Your task to perform on an android device: Open Google Maps and go to "Timeline" Image 0: 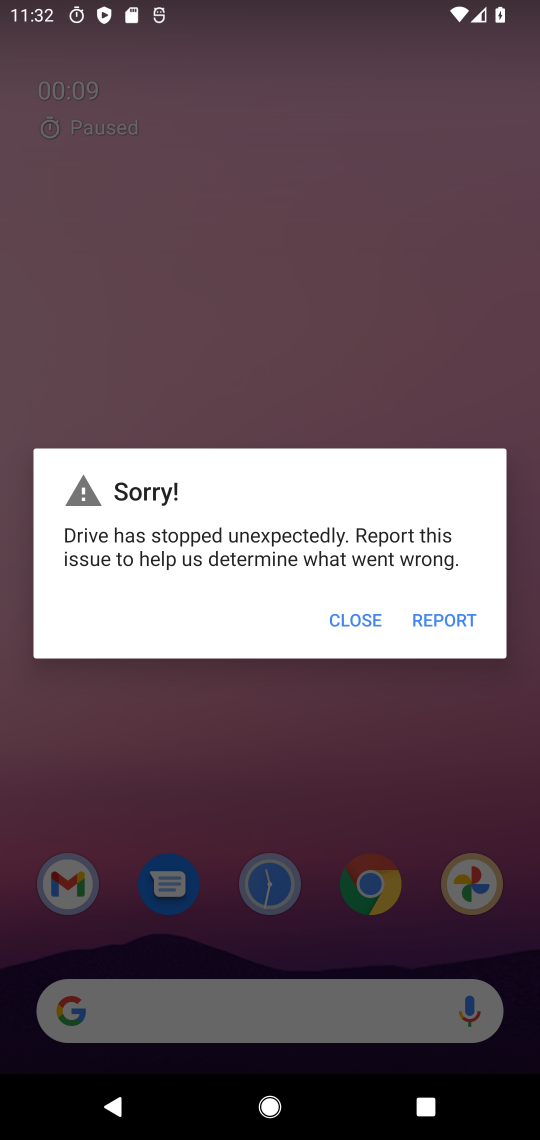
Step 0: press home button
Your task to perform on an android device: Open Google Maps and go to "Timeline" Image 1: 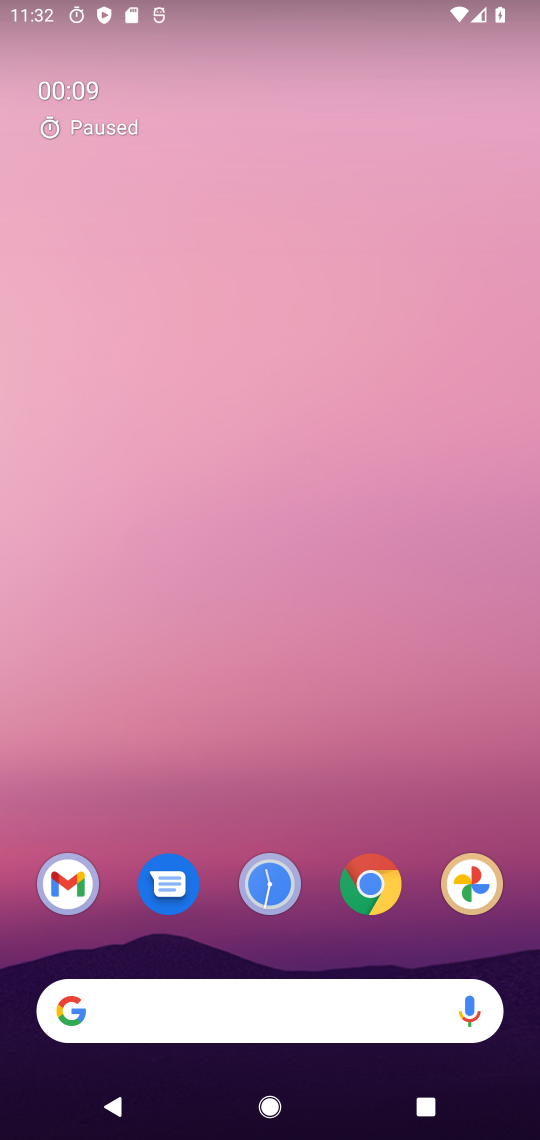
Step 1: drag from (270, 901) to (270, 88)
Your task to perform on an android device: Open Google Maps and go to "Timeline" Image 2: 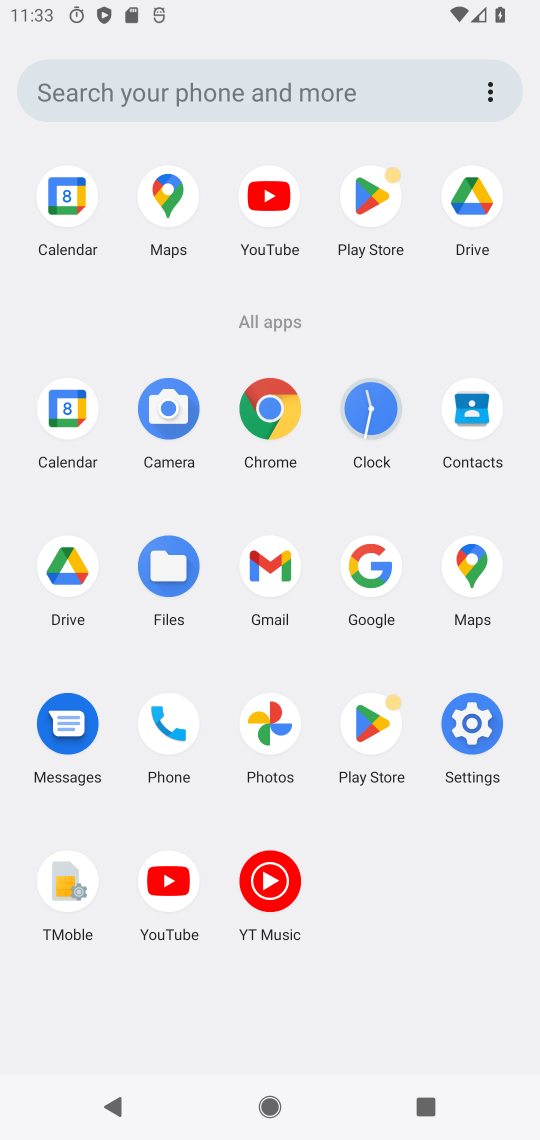
Step 2: click (470, 578)
Your task to perform on an android device: Open Google Maps and go to "Timeline" Image 3: 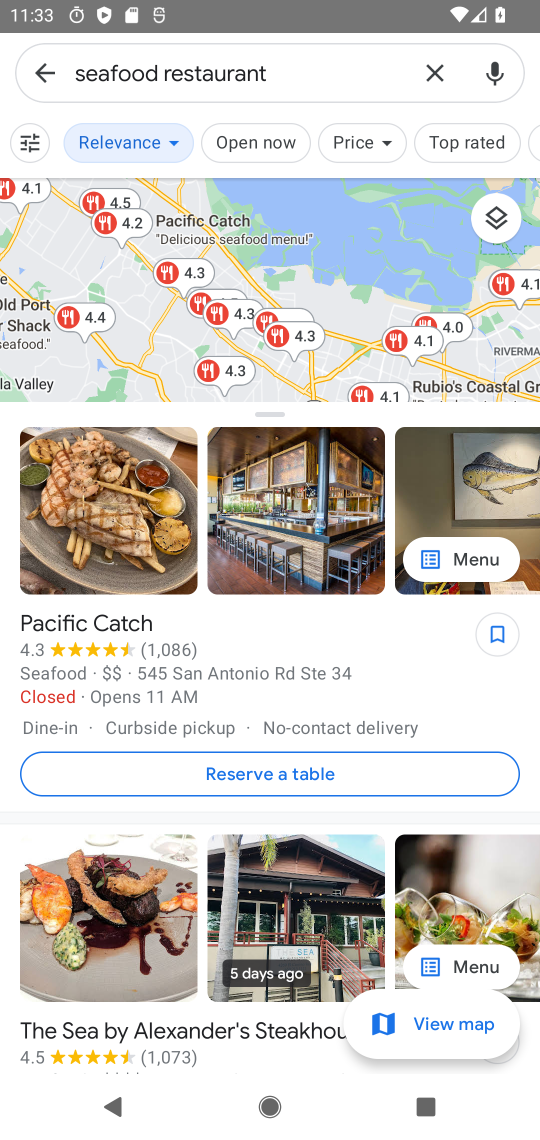
Step 3: click (43, 62)
Your task to perform on an android device: Open Google Maps and go to "Timeline" Image 4: 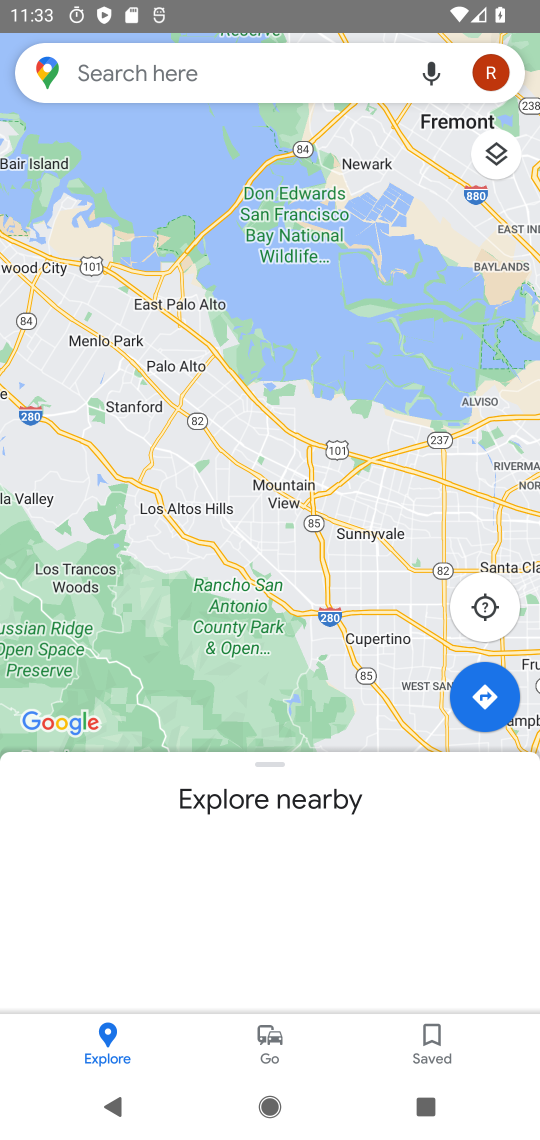
Step 4: click (39, 73)
Your task to perform on an android device: Open Google Maps and go to "Timeline" Image 5: 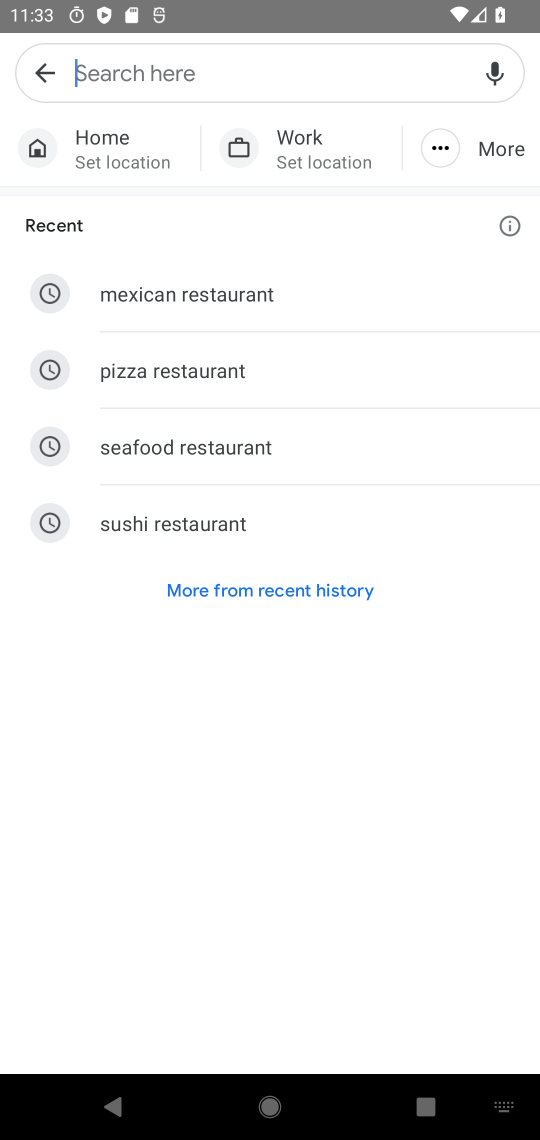
Step 5: click (48, 65)
Your task to perform on an android device: Open Google Maps and go to "Timeline" Image 6: 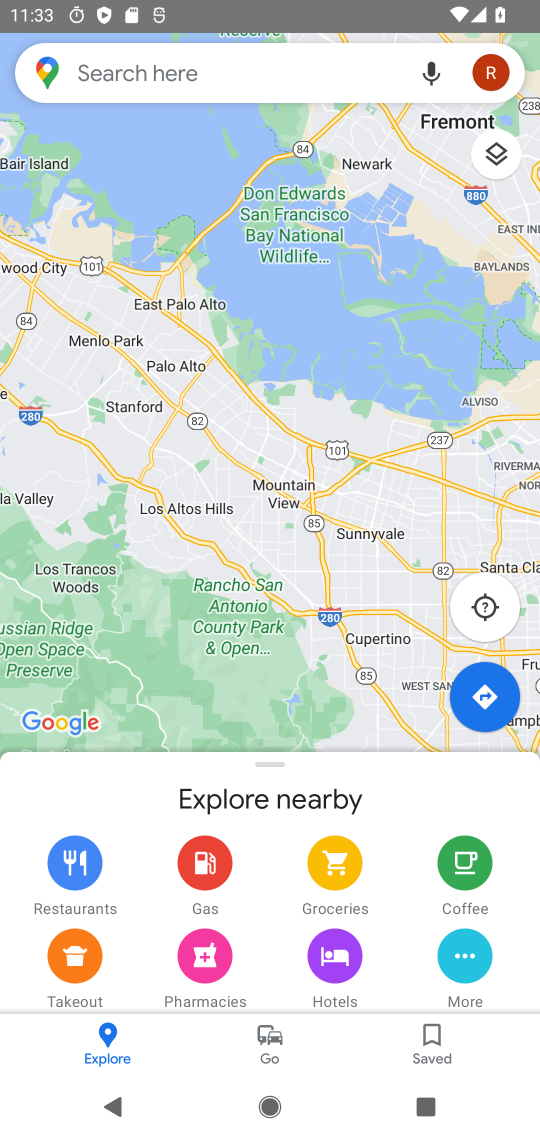
Step 6: click (492, 79)
Your task to perform on an android device: Open Google Maps and go to "Timeline" Image 7: 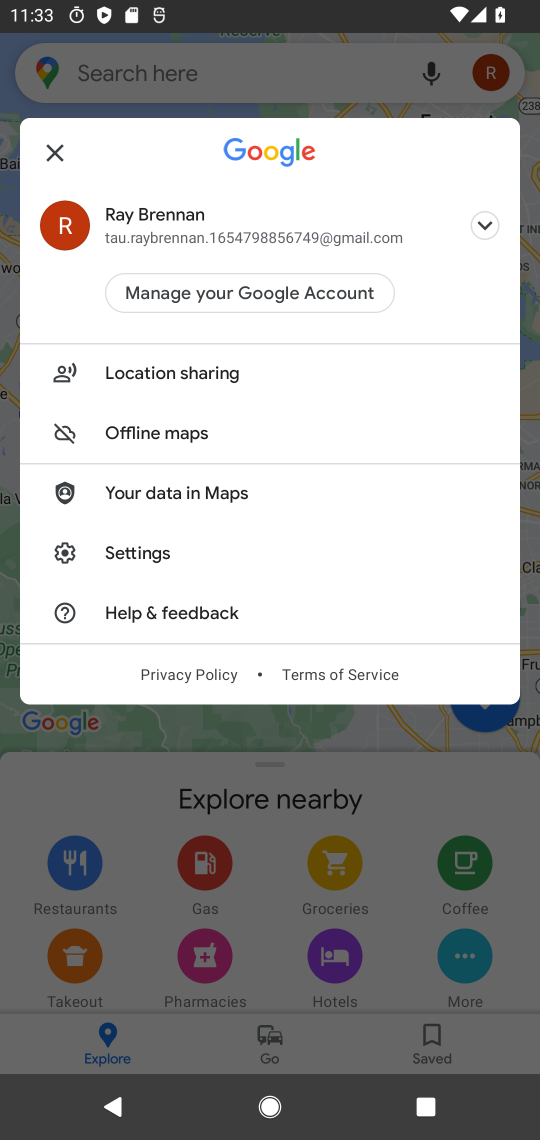
Step 7: click (134, 551)
Your task to perform on an android device: Open Google Maps and go to "Timeline" Image 8: 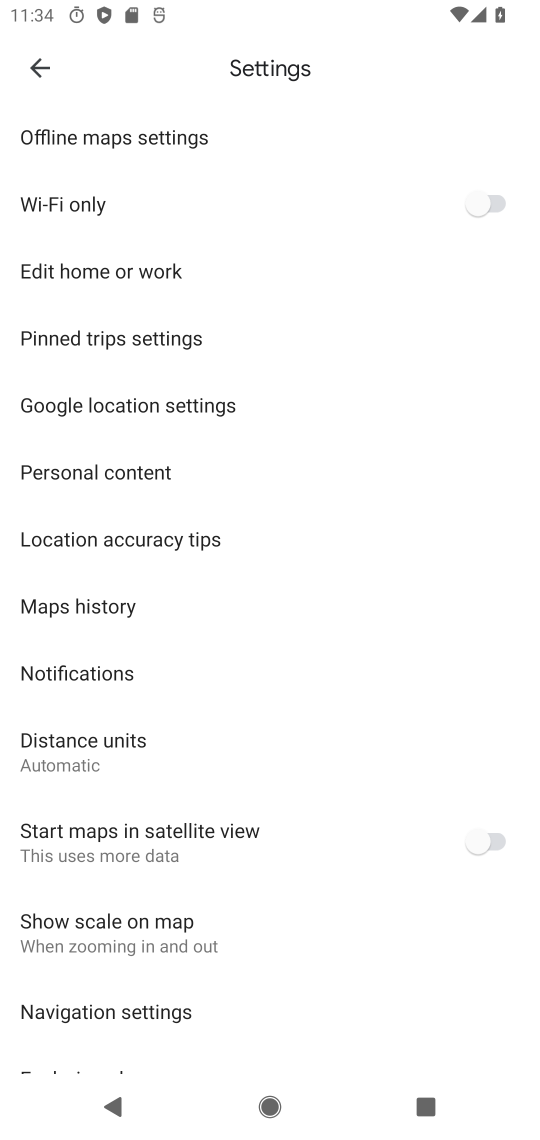
Step 8: click (47, 62)
Your task to perform on an android device: Open Google Maps and go to "Timeline" Image 9: 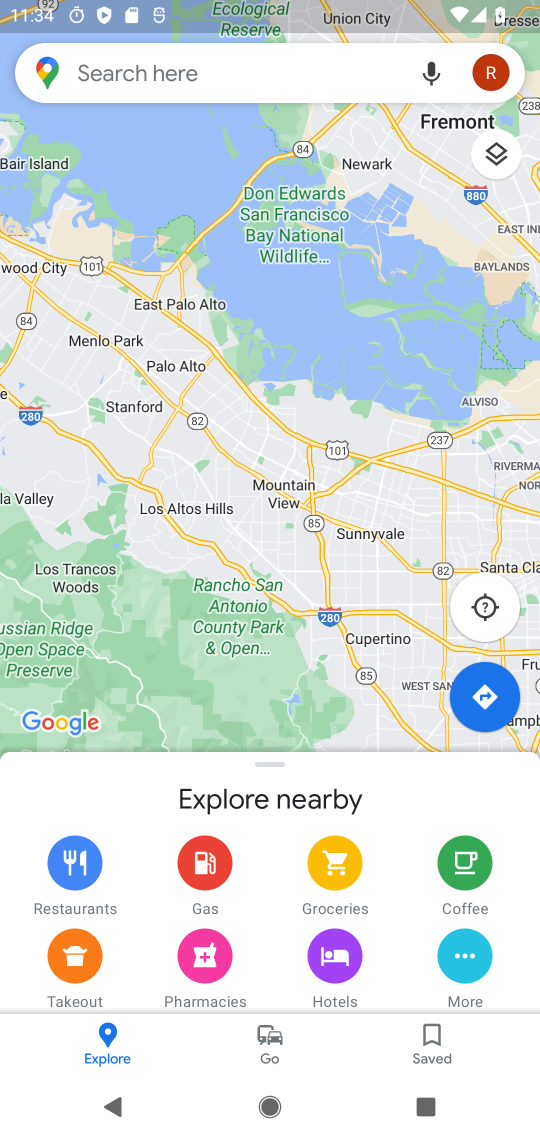
Step 9: click (494, 79)
Your task to perform on an android device: Open Google Maps and go to "Timeline" Image 10: 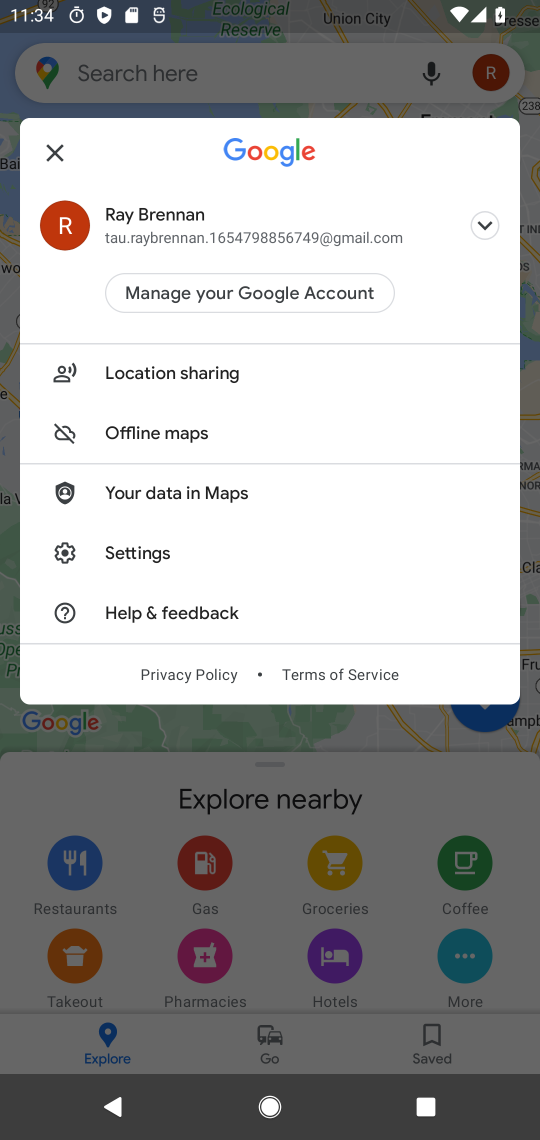
Step 10: click (139, 547)
Your task to perform on an android device: Open Google Maps and go to "Timeline" Image 11: 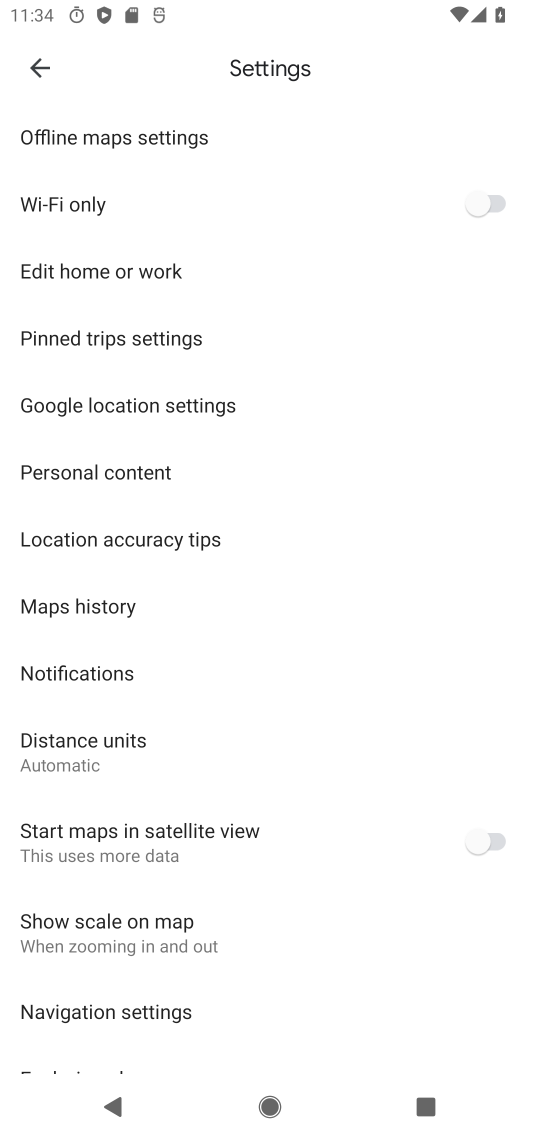
Step 11: click (47, 71)
Your task to perform on an android device: Open Google Maps and go to "Timeline" Image 12: 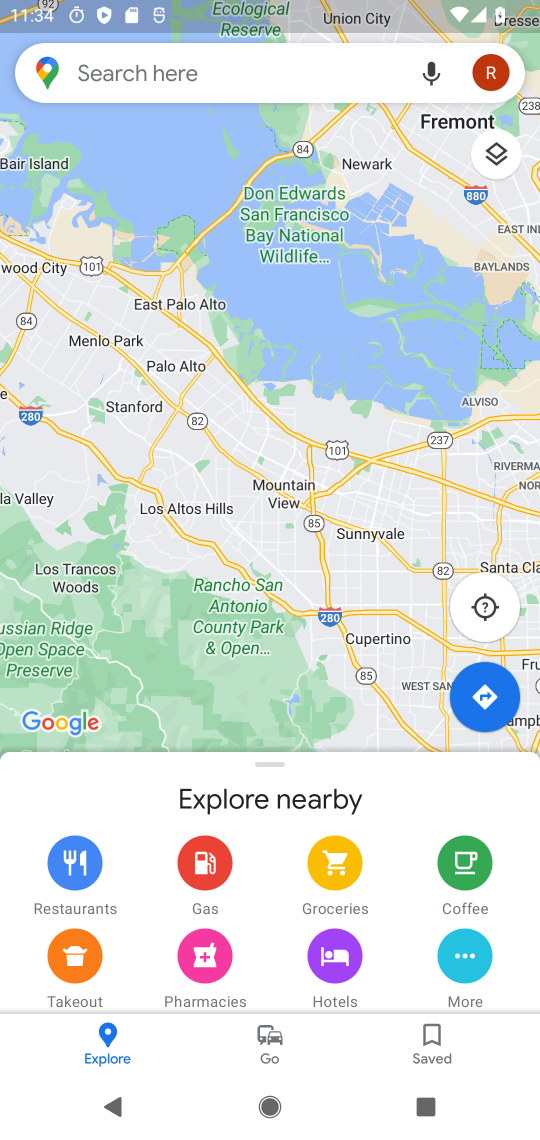
Step 12: click (47, 71)
Your task to perform on an android device: Open Google Maps and go to "Timeline" Image 13: 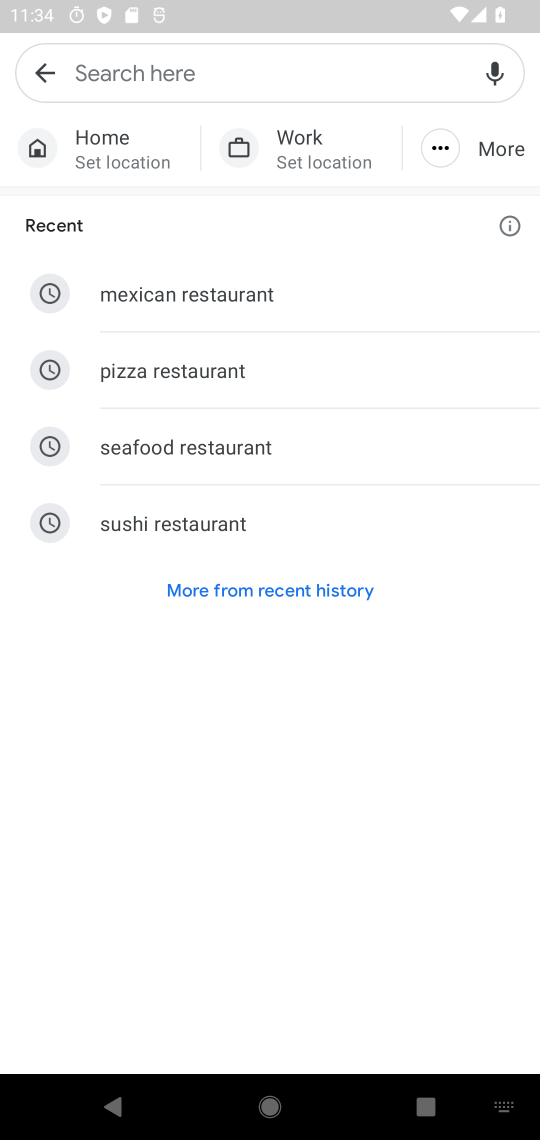
Step 13: task complete